Your task to perform on an android device: Open privacy settings Image 0: 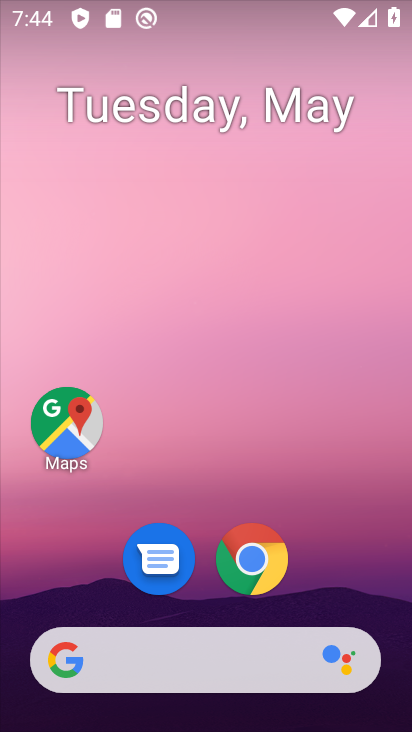
Step 0: drag from (382, 548) to (381, 171)
Your task to perform on an android device: Open privacy settings Image 1: 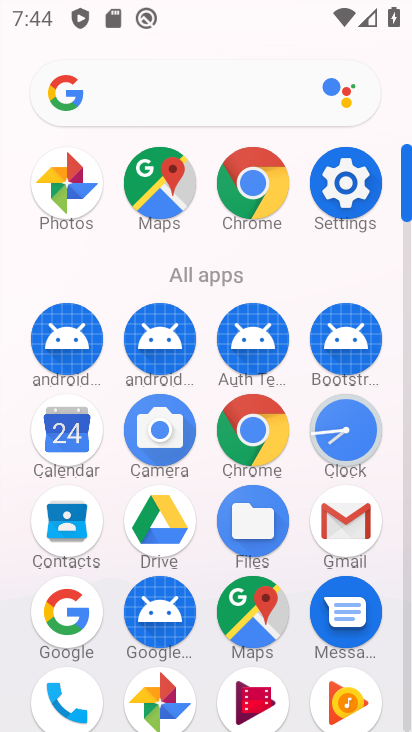
Step 1: click (353, 196)
Your task to perform on an android device: Open privacy settings Image 2: 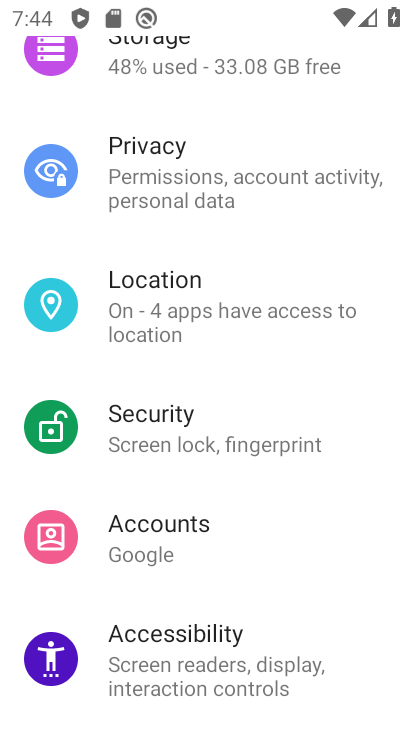
Step 2: drag from (379, 222) to (364, 325)
Your task to perform on an android device: Open privacy settings Image 3: 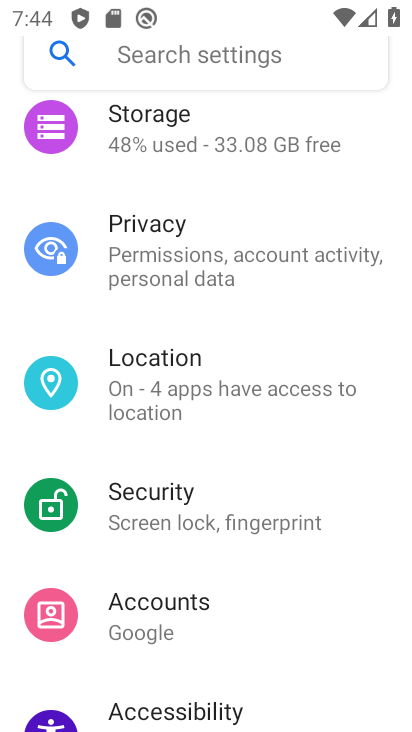
Step 3: drag from (383, 179) to (391, 311)
Your task to perform on an android device: Open privacy settings Image 4: 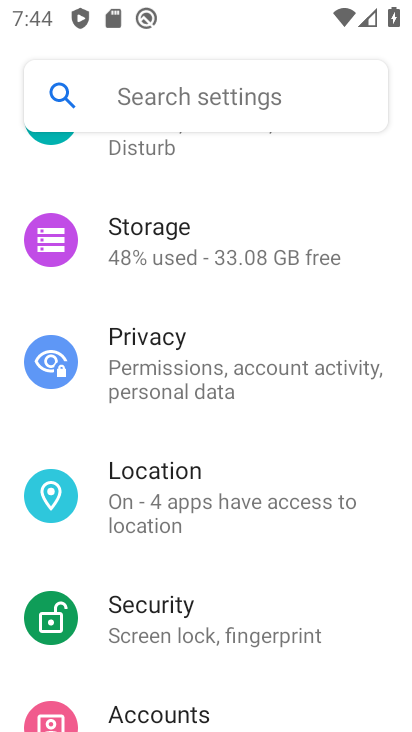
Step 4: drag from (384, 170) to (382, 295)
Your task to perform on an android device: Open privacy settings Image 5: 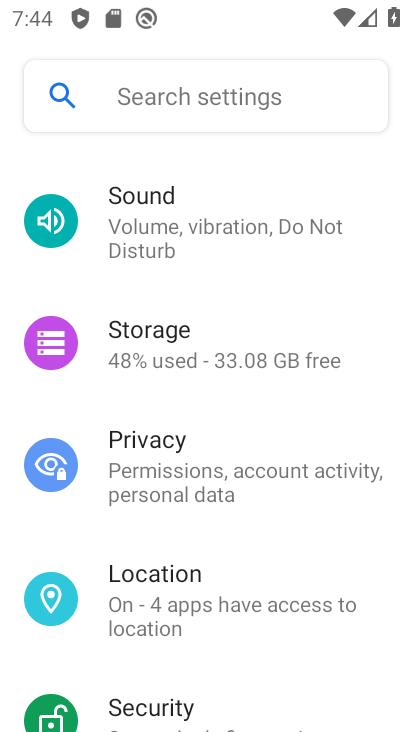
Step 5: drag from (388, 158) to (380, 288)
Your task to perform on an android device: Open privacy settings Image 6: 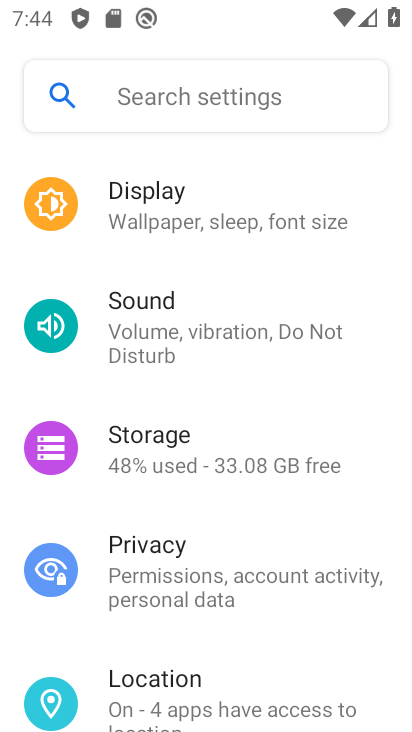
Step 6: drag from (373, 182) to (361, 289)
Your task to perform on an android device: Open privacy settings Image 7: 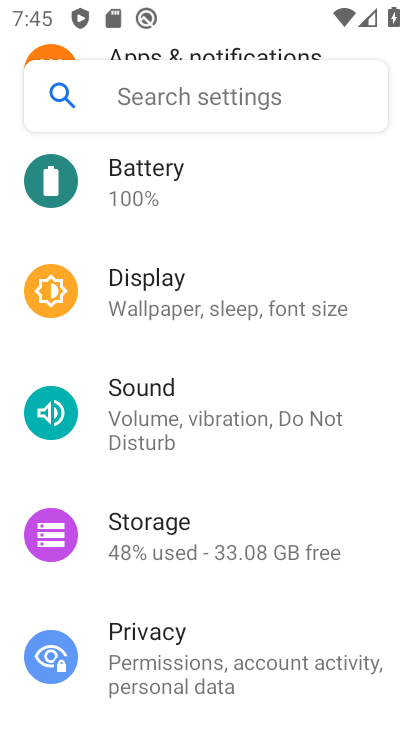
Step 7: drag from (370, 174) to (373, 279)
Your task to perform on an android device: Open privacy settings Image 8: 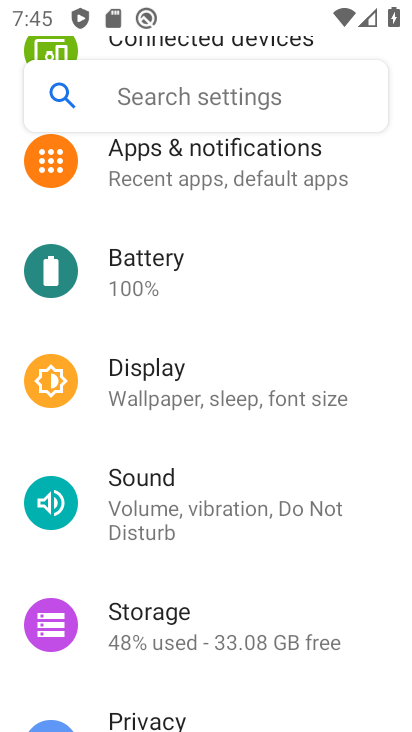
Step 8: drag from (368, 178) to (363, 349)
Your task to perform on an android device: Open privacy settings Image 9: 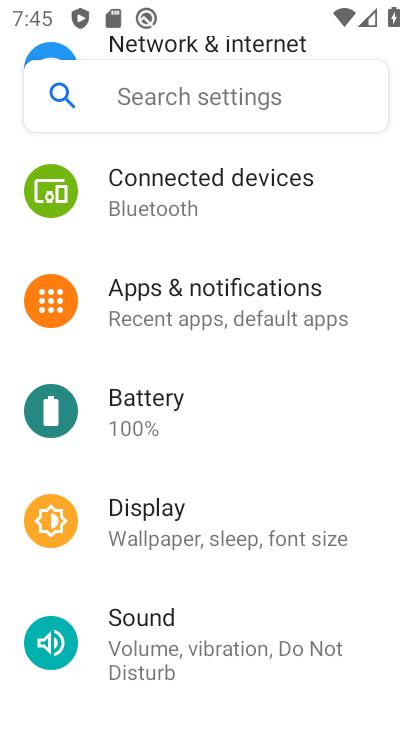
Step 9: drag from (374, 164) to (361, 295)
Your task to perform on an android device: Open privacy settings Image 10: 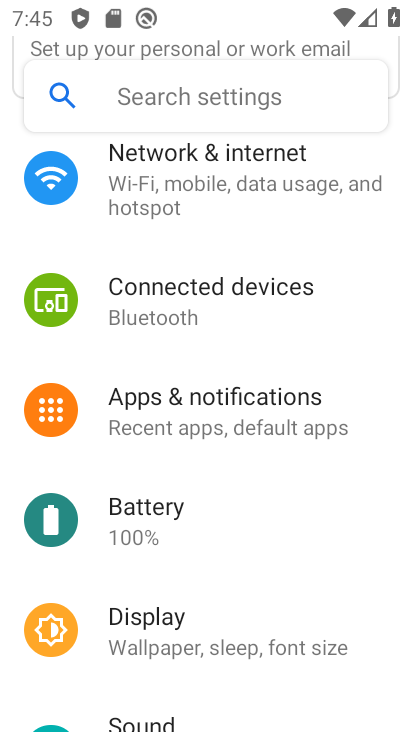
Step 10: drag from (363, 153) to (369, 306)
Your task to perform on an android device: Open privacy settings Image 11: 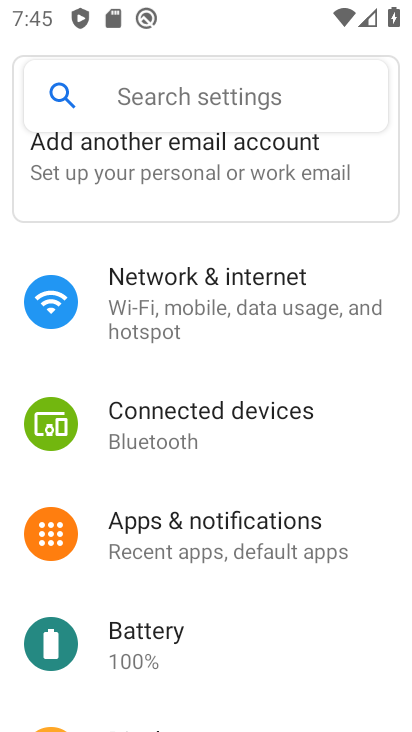
Step 11: drag from (359, 425) to (379, 310)
Your task to perform on an android device: Open privacy settings Image 12: 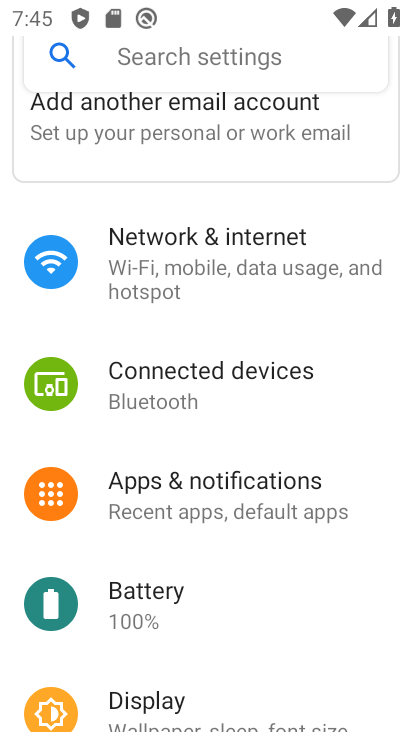
Step 12: drag from (372, 430) to (374, 299)
Your task to perform on an android device: Open privacy settings Image 13: 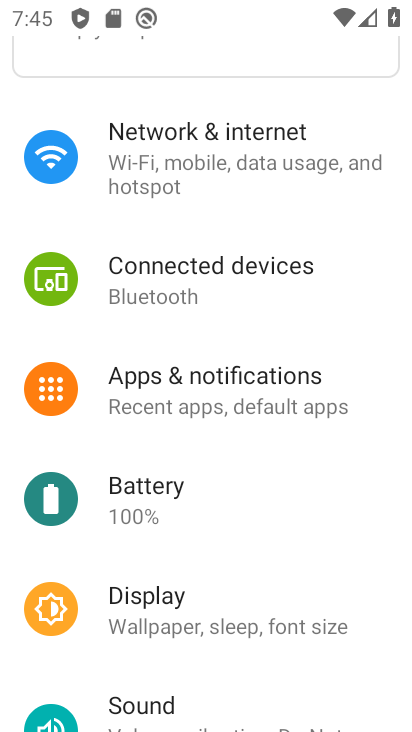
Step 13: drag from (378, 491) to (376, 342)
Your task to perform on an android device: Open privacy settings Image 14: 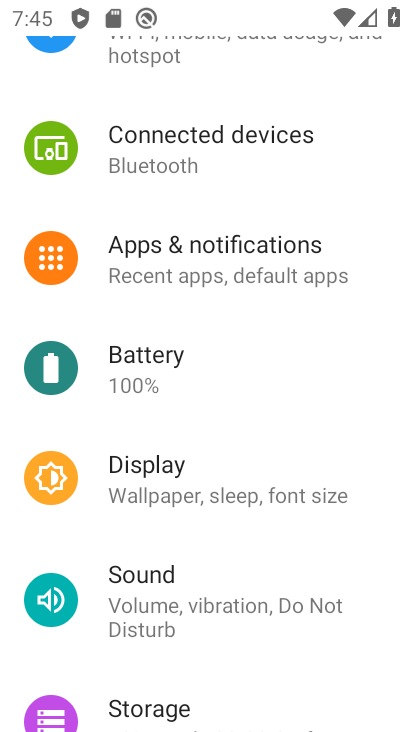
Step 14: drag from (368, 474) to (363, 386)
Your task to perform on an android device: Open privacy settings Image 15: 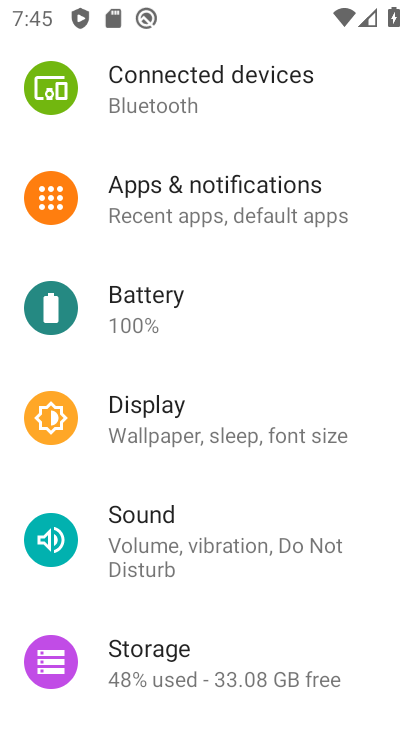
Step 15: drag from (372, 502) to (373, 372)
Your task to perform on an android device: Open privacy settings Image 16: 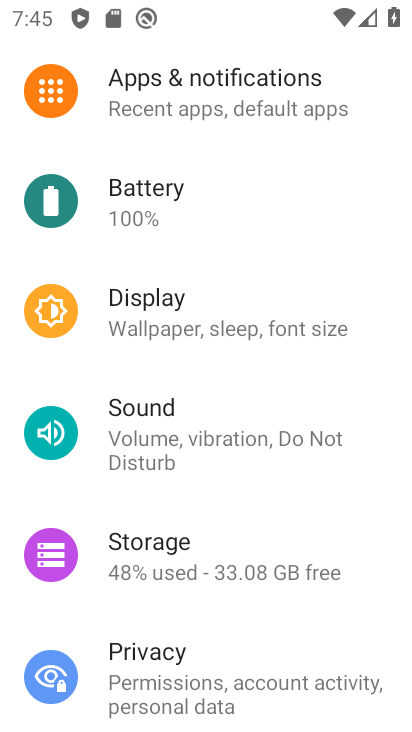
Step 16: drag from (378, 488) to (377, 380)
Your task to perform on an android device: Open privacy settings Image 17: 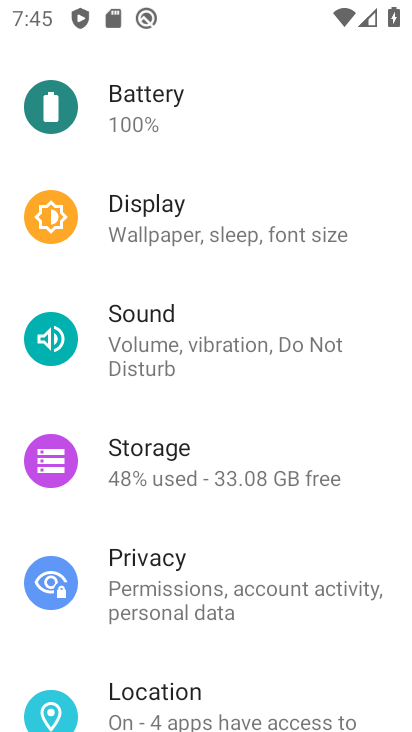
Step 17: drag from (373, 521) to (372, 402)
Your task to perform on an android device: Open privacy settings Image 18: 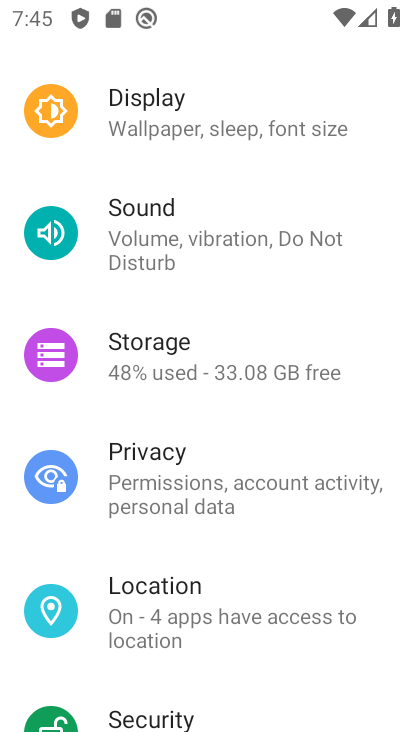
Step 18: drag from (362, 530) to (376, 418)
Your task to perform on an android device: Open privacy settings Image 19: 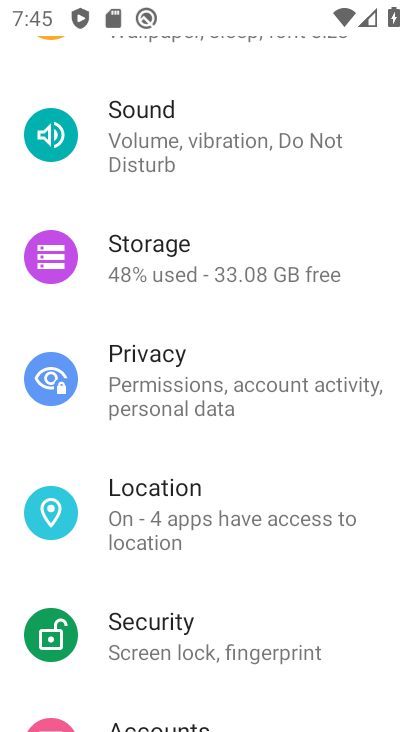
Step 19: drag from (376, 546) to (372, 422)
Your task to perform on an android device: Open privacy settings Image 20: 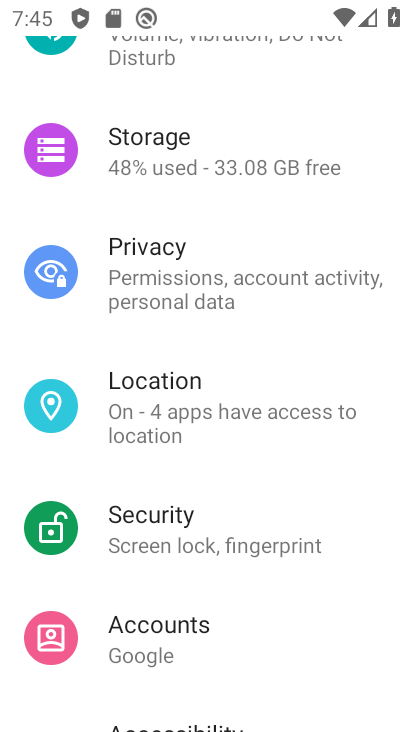
Step 20: click (310, 296)
Your task to perform on an android device: Open privacy settings Image 21: 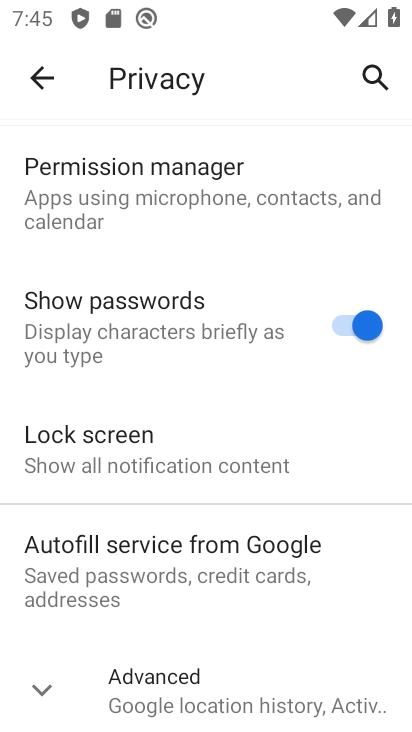
Step 21: task complete